Your task to perform on an android device: Open wifi settings Image 0: 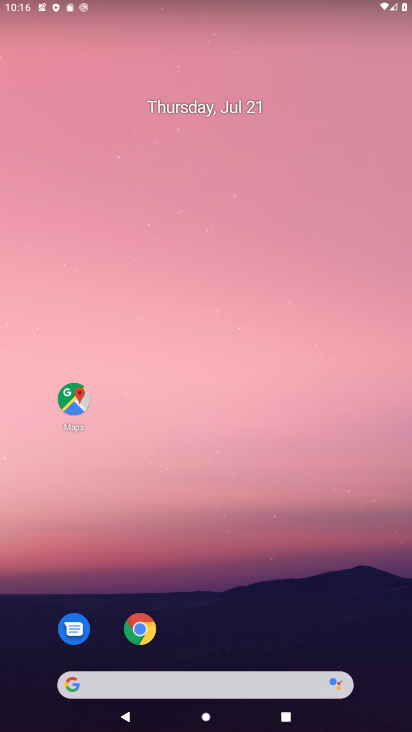
Step 0: press home button
Your task to perform on an android device: Open wifi settings Image 1: 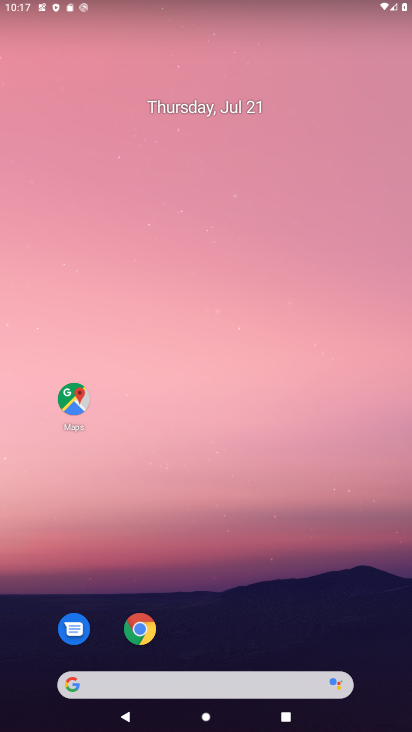
Step 1: drag from (265, 566) to (238, 198)
Your task to perform on an android device: Open wifi settings Image 2: 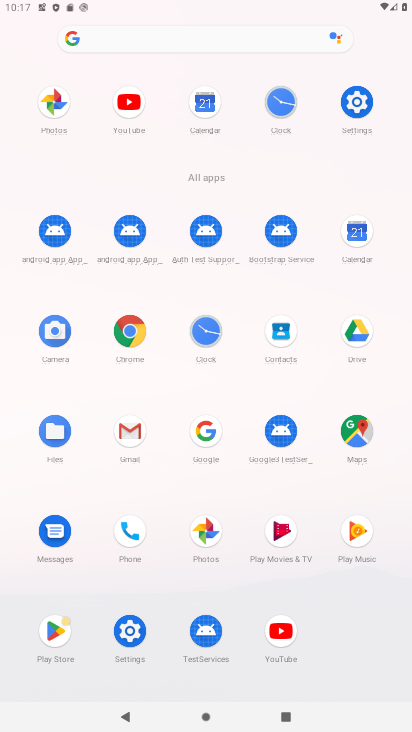
Step 2: click (357, 106)
Your task to perform on an android device: Open wifi settings Image 3: 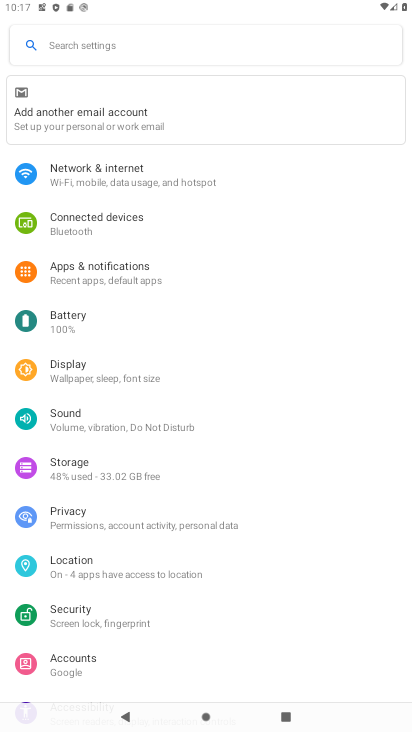
Step 3: click (79, 172)
Your task to perform on an android device: Open wifi settings Image 4: 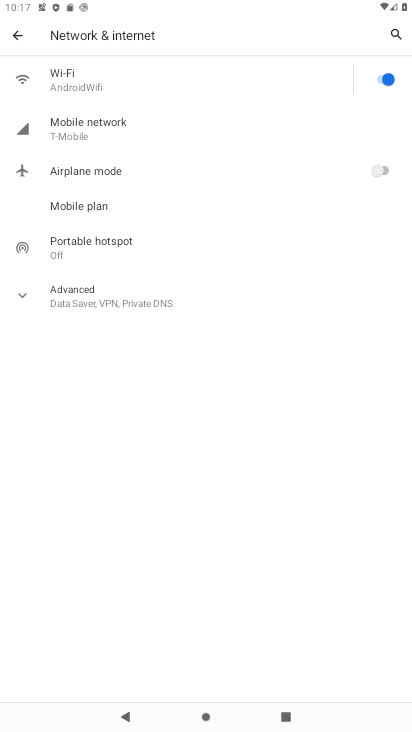
Step 4: task complete